Your task to perform on an android device: Show me recent news Image 0: 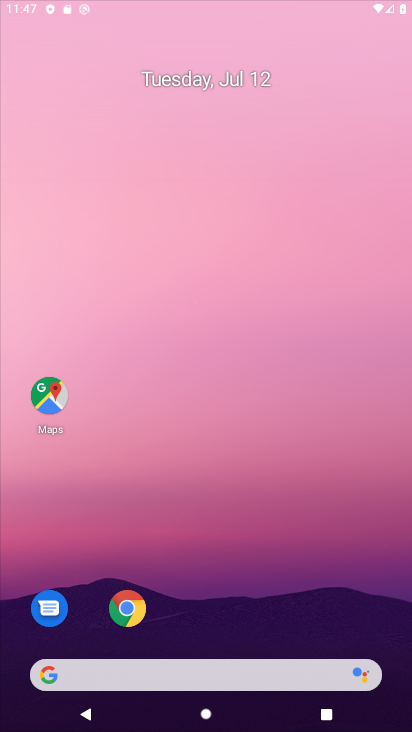
Step 0: click (47, 395)
Your task to perform on an android device: Show me recent news Image 1: 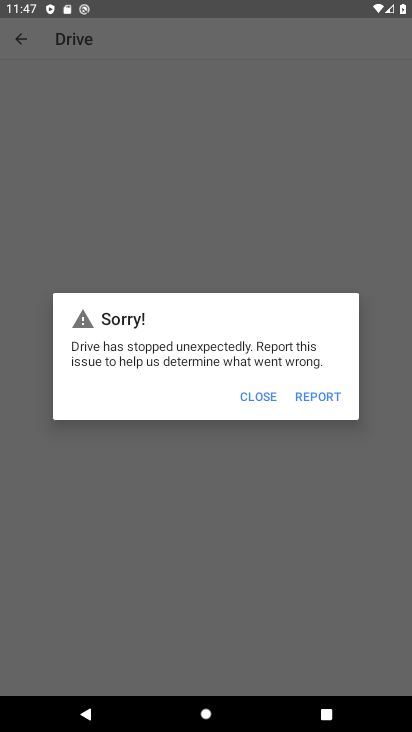
Step 1: click (255, 388)
Your task to perform on an android device: Show me recent news Image 2: 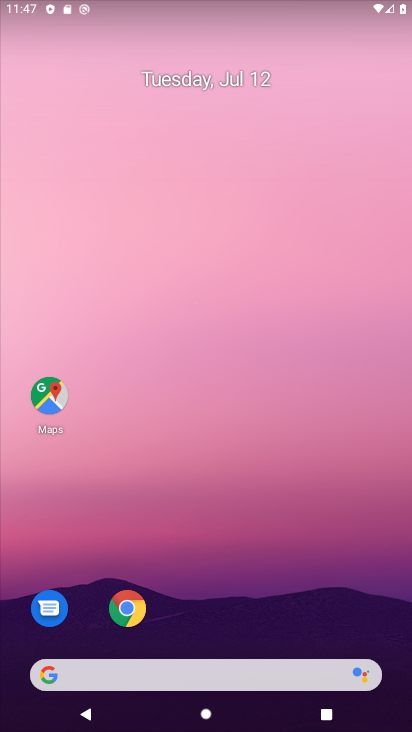
Step 2: click (161, 675)
Your task to perform on an android device: Show me recent news Image 3: 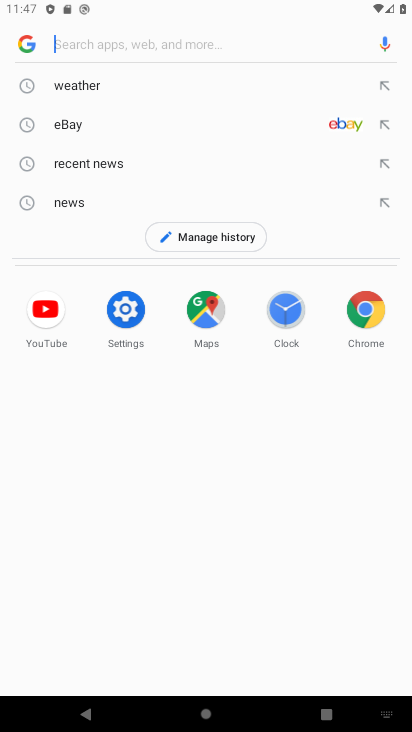
Step 3: click (96, 164)
Your task to perform on an android device: Show me recent news Image 4: 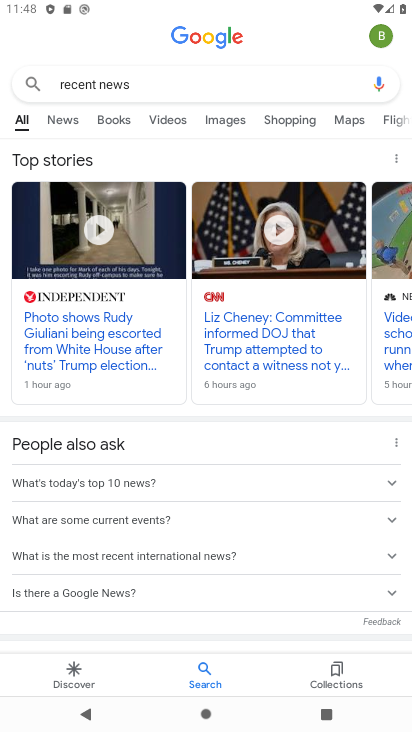
Step 4: task complete